Your task to perform on an android device: Is it going to rain tomorrow? Image 0: 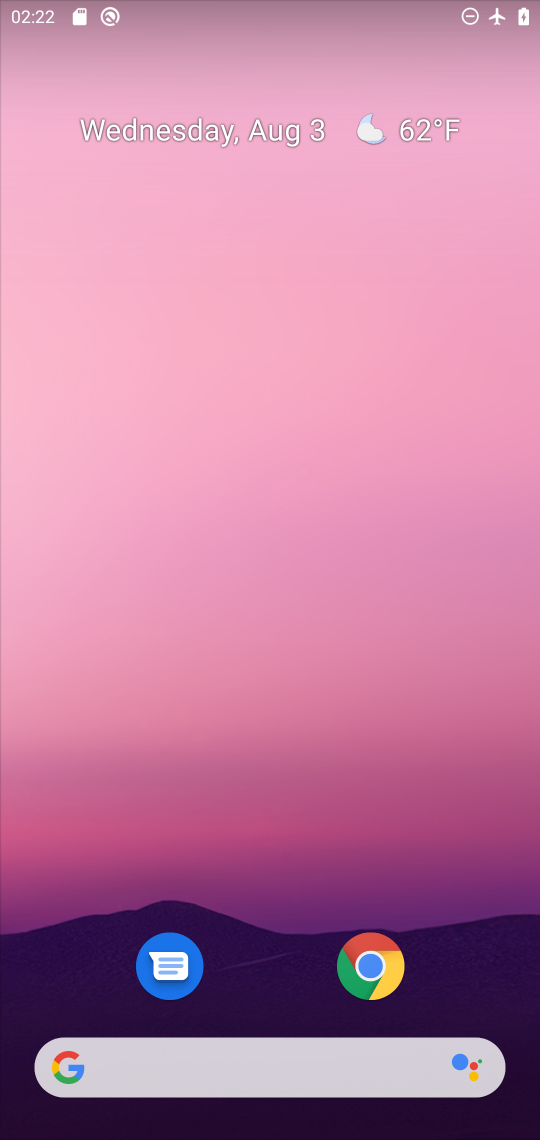
Step 0: drag from (265, 969) to (260, 327)
Your task to perform on an android device: Is it going to rain tomorrow? Image 1: 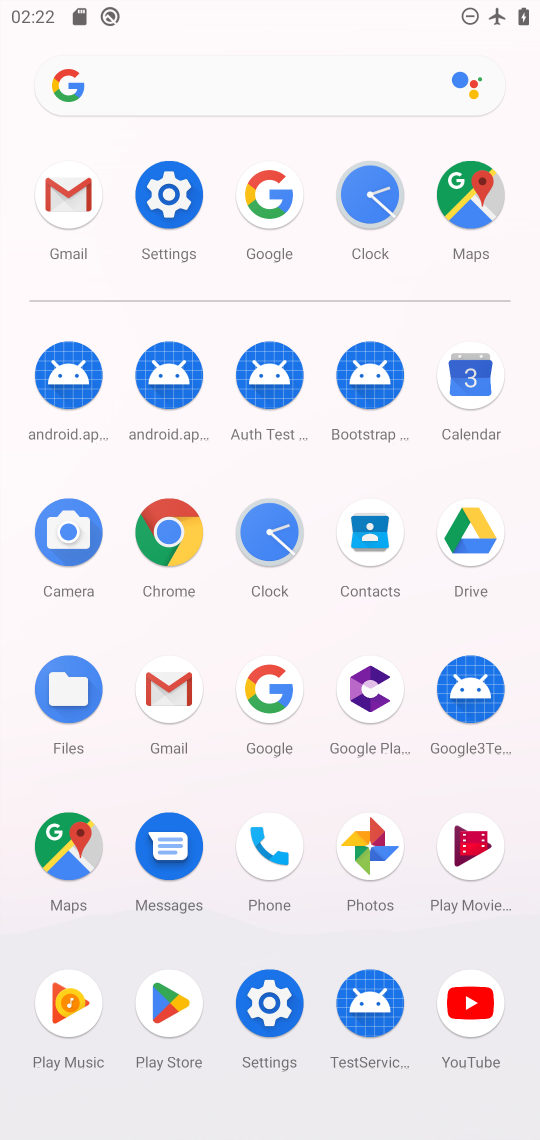
Step 1: click (283, 199)
Your task to perform on an android device: Is it going to rain tomorrow? Image 2: 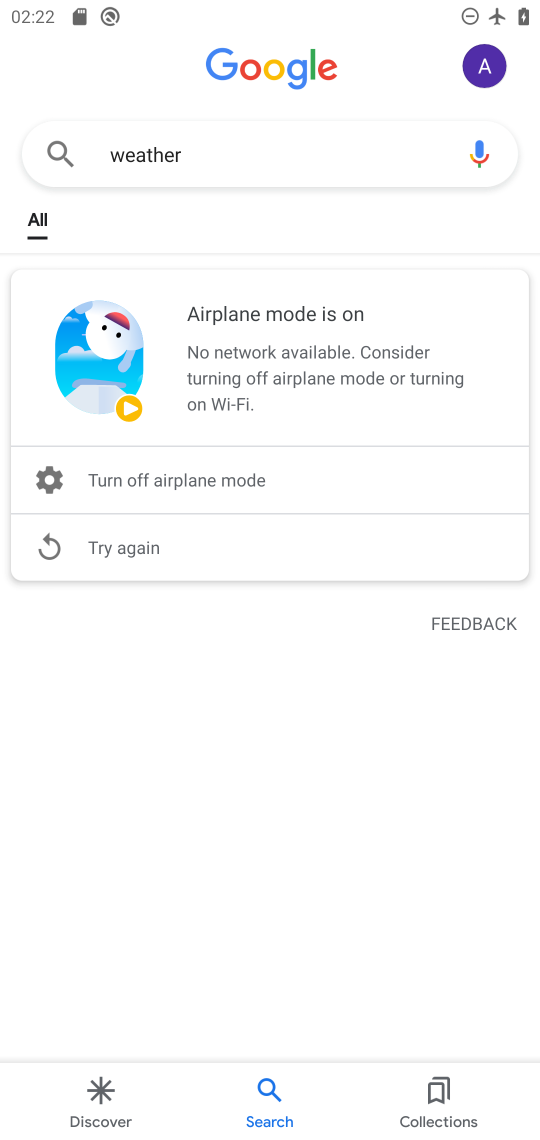
Step 2: task complete